Your task to perform on an android device: refresh tabs in the chrome app Image 0: 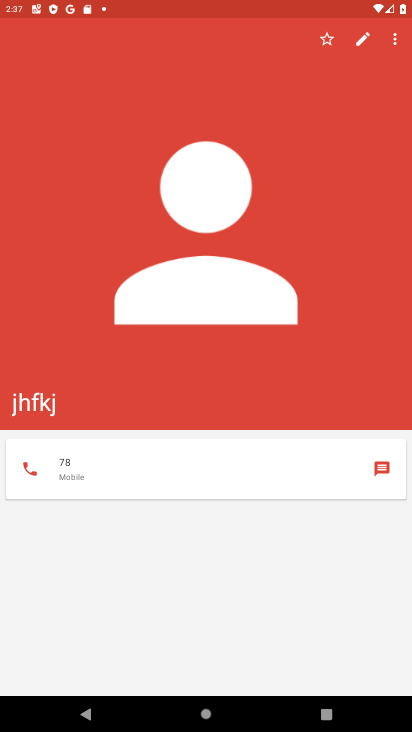
Step 0: press home button
Your task to perform on an android device: refresh tabs in the chrome app Image 1: 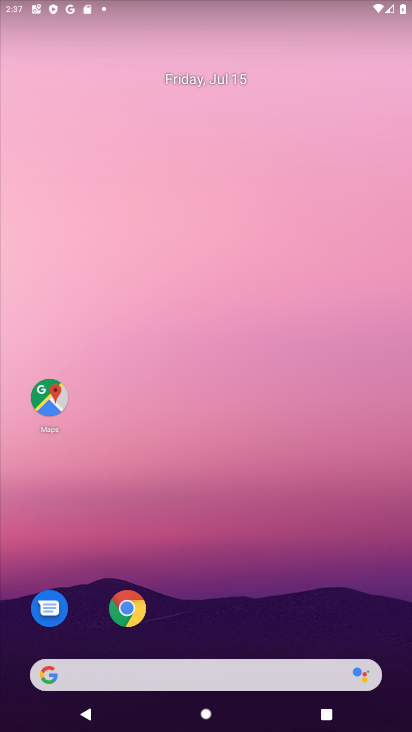
Step 1: drag from (202, 697) to (202, 218)
Your task to perform on an android device: refresh tabs in the chrome app Image 2: 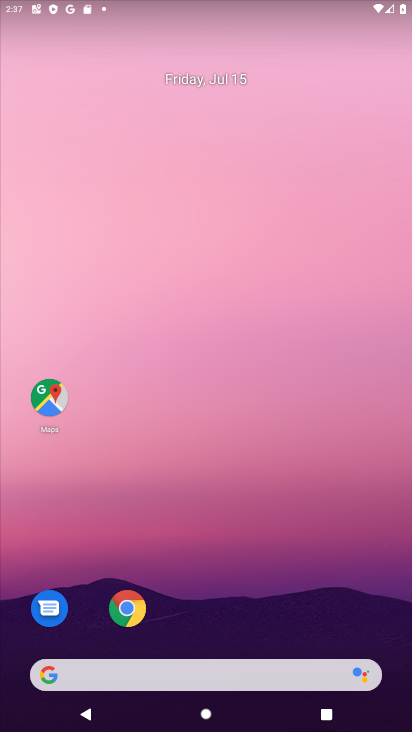
Step 2: click (134, 604)
Your task to perform on an android device: refresh tabs in the chrome app Image 3: 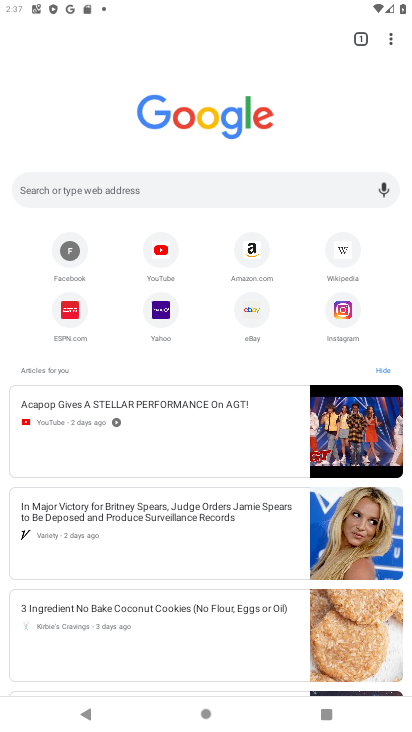
Step 3: click (390, 36)
Your task to perform on an android device: refresh tabs in the chrome app Image 4: 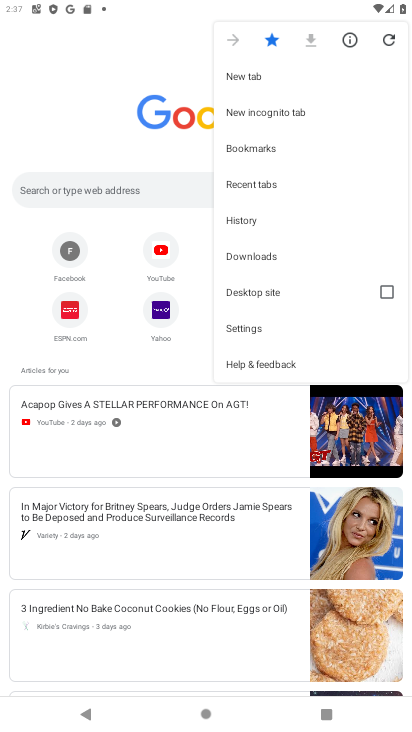
Step 4: click (385, 43)
Your task to perform on an android device: refresh tabs in the chrome app Image 5: 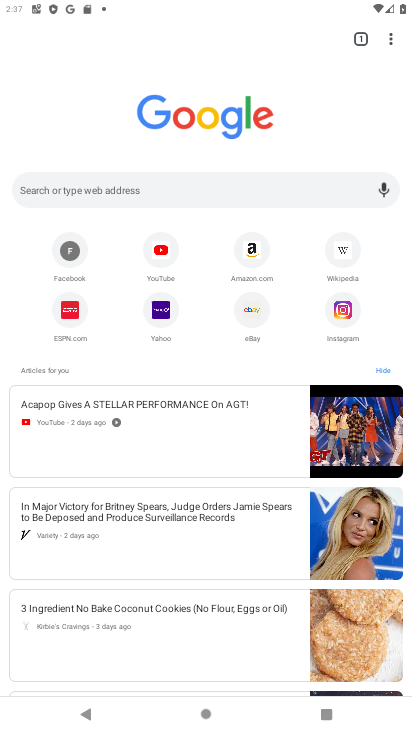
Step 5: task complete